Your task to perform on an android device: What's the weather going to be tomorrow? Image 0: 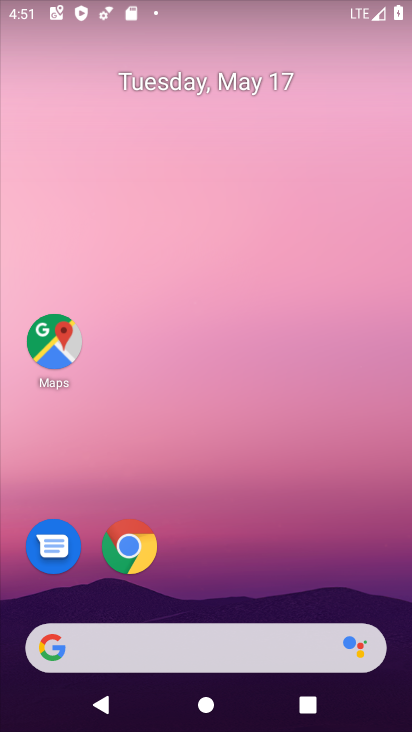
Step 0: drag from (221, 575) to (232, 79)
Your task to perform on an android device: What's the weather going to be tomorrow? Image 1: 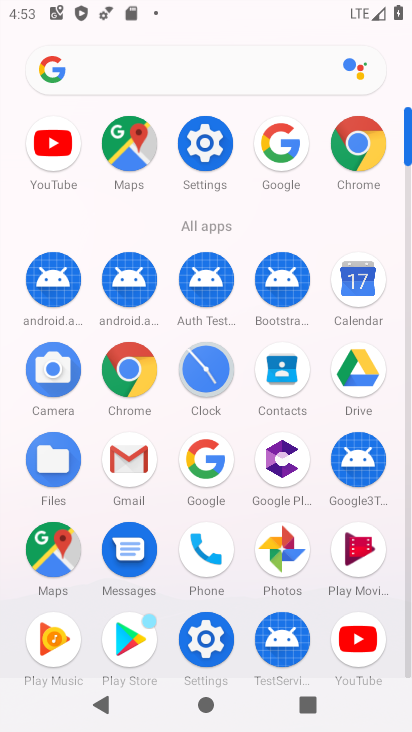
Step 1: click (281, 176)
Your task to perform on an android device: What's the weather going to be tomorrow? Image 2: 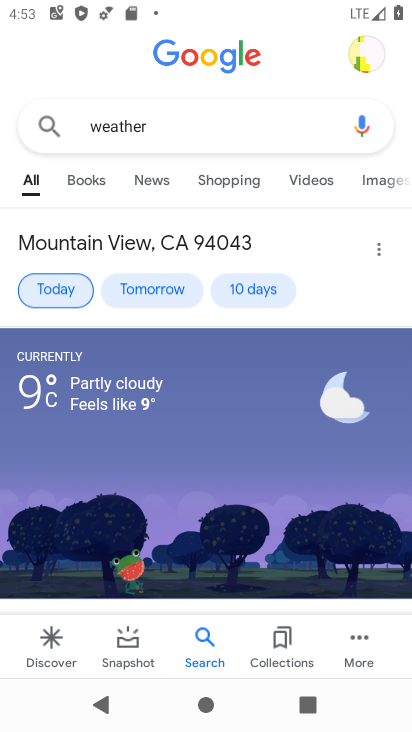
Step 2: click (156, 283)
Your task to perform on an android device: What's the weather going to be tomorrow? Image 3: 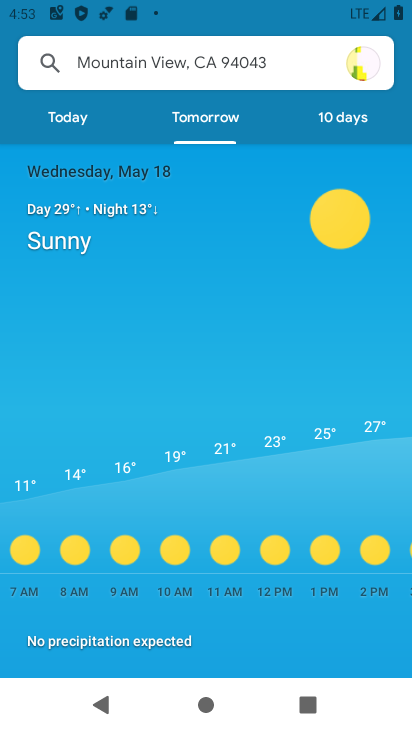
Step 3: task complete